Your task to perform on an android device: set an alarm Image 0: 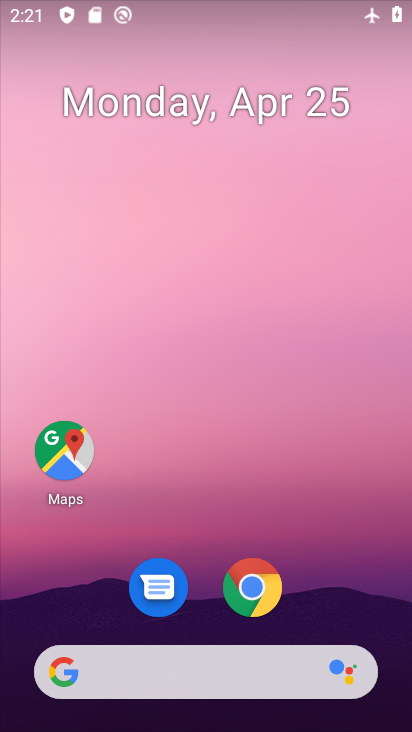
Step 0: drag from (353, 643) to (306, 100)
Your task to perform on an android device: set an alarm Image 1: 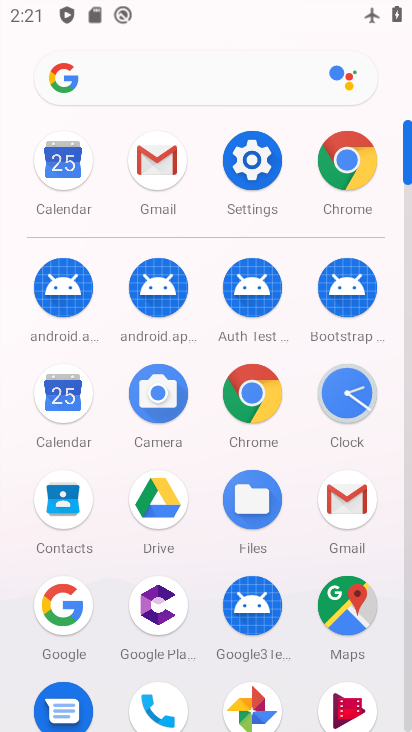
Step 1: click (357, 387)
Your task to perform on an android device: set an alarm Image 2: 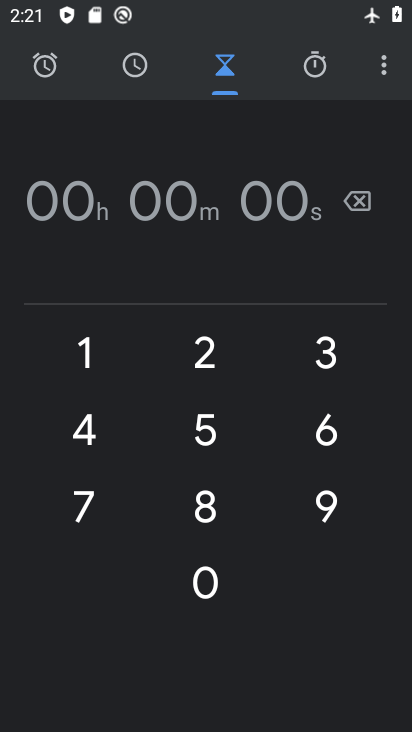
Step 2: click (32, 74)
Your task to perform on an android device: set an alarm Image 3: 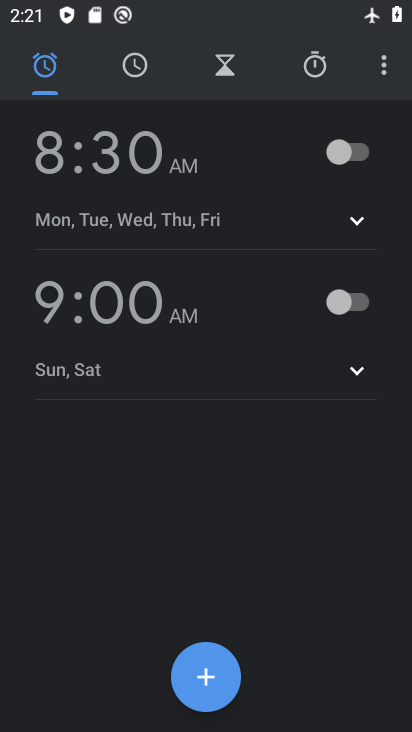
Step 3: click (205, 651)
Your task to perform on an android device: set an alarm Image 4: 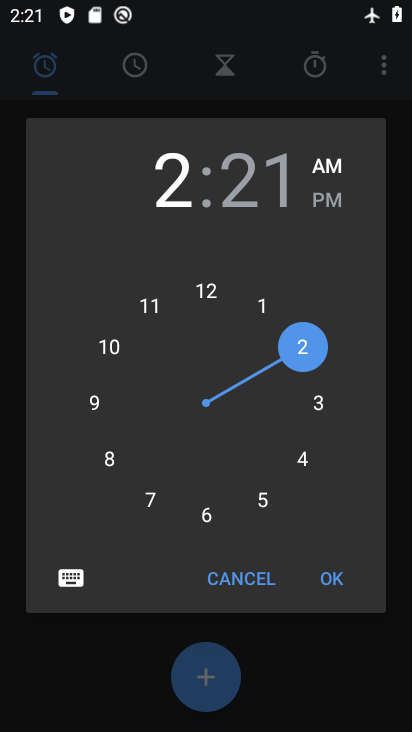
Step 4: click (330, 578)
Your task to perform on an android device: set an alarm Image 5: 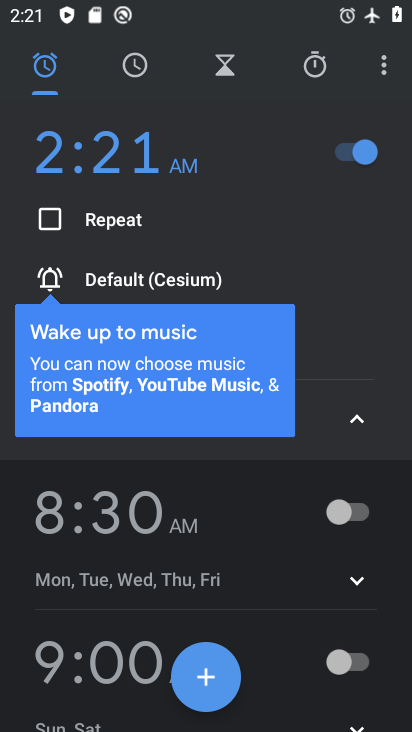
Step 5: task complete